Your task to perform on an android device: Go to wifi settings Image 0: 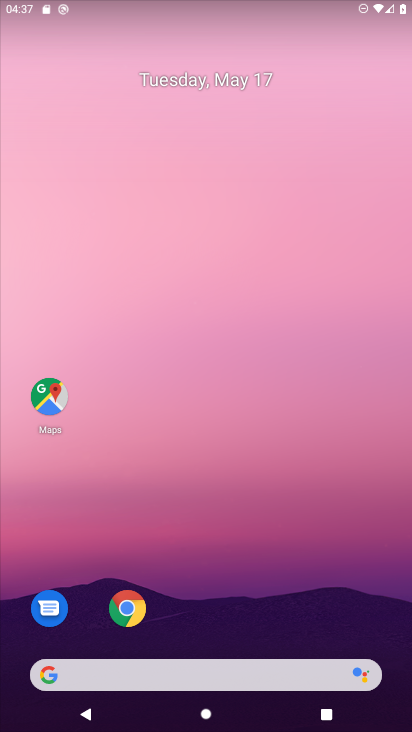
Step 0: drag from (218, 661) to (241, 186)
Your task to perform on an android device: Go to wifi settings Image 1: 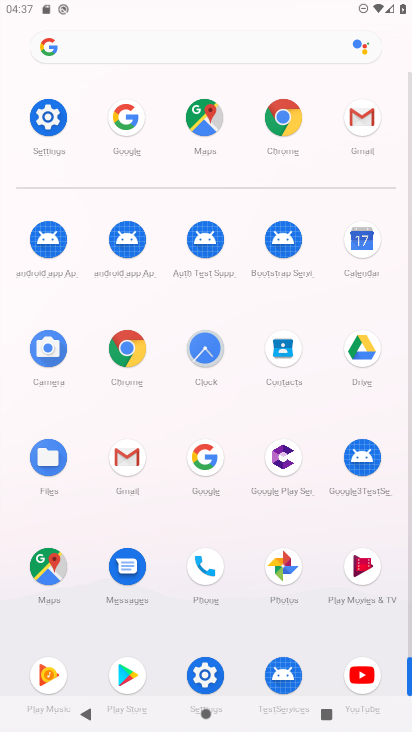
Step 1: click (38, 120)
Your task to perform on an android device: Go to wifi settings Image 2: 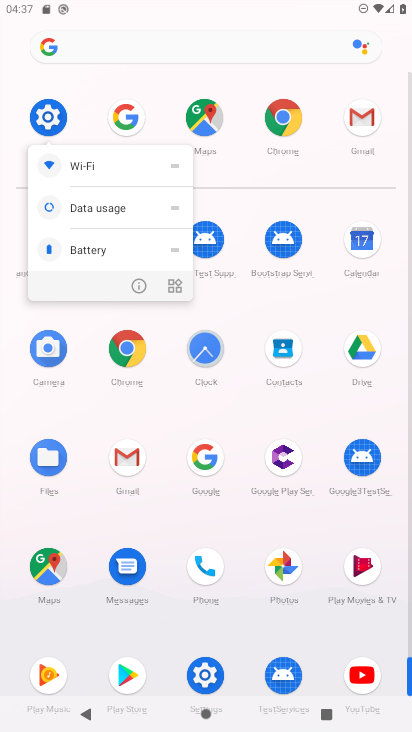
Step 2: click (83, 170)
Your task to perform on an android device: Go to wifi settings Image 3: 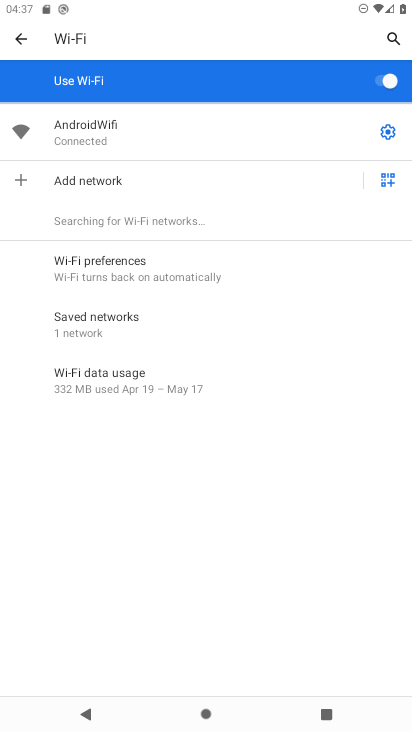
Step 3: click (392, 135)
Your task to perform on an android device: Go to wifi settings Image 4: 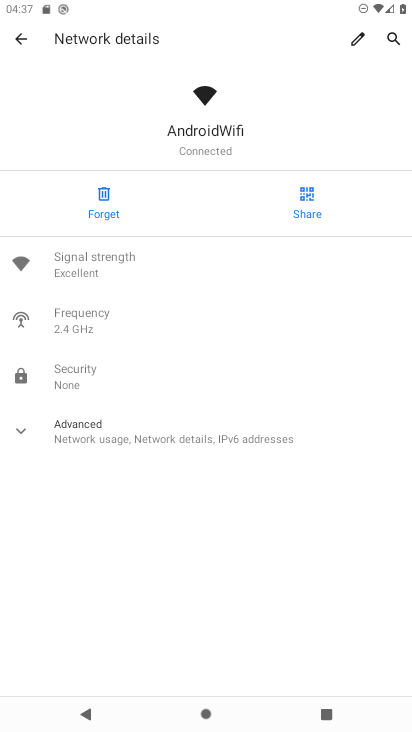
Step 4: click (175, 441)
Your task to perform on an android device: Go to wifi settings Image 5: 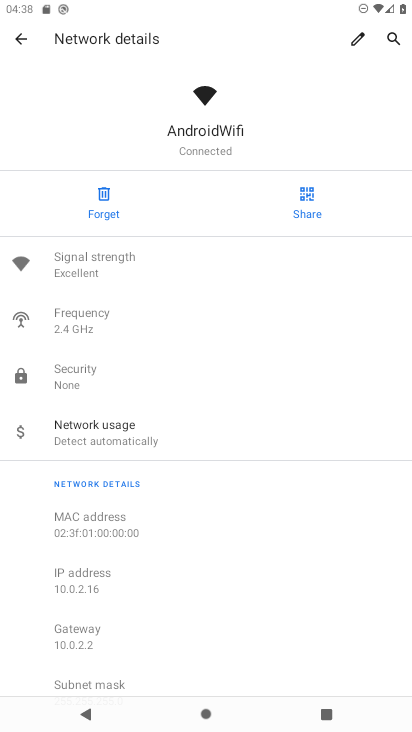
Step 5: task complete